Your task to perform on an android device: See recent photos Image 0: 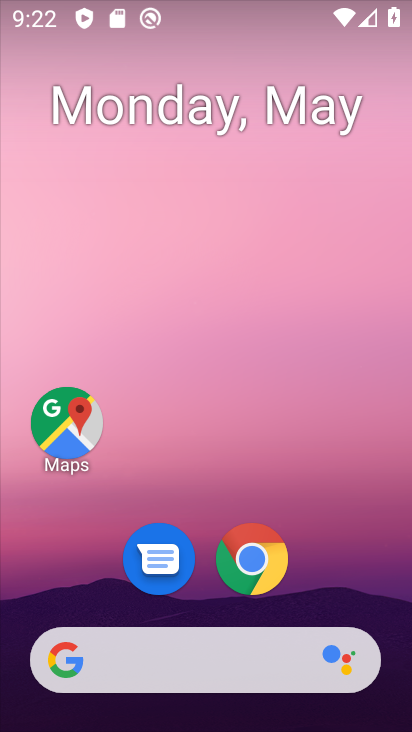
Step 0: drag from (79, 607) to (173, 133)
Your task to perform on an android device: See recent photos Image 1: 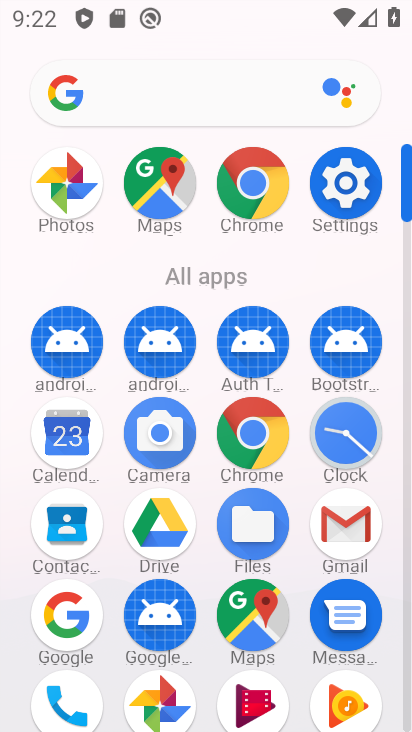
Step 1: drag from (125, 626) to (187, 318)
Your task to perform on an android device: See recent photos Image 2: 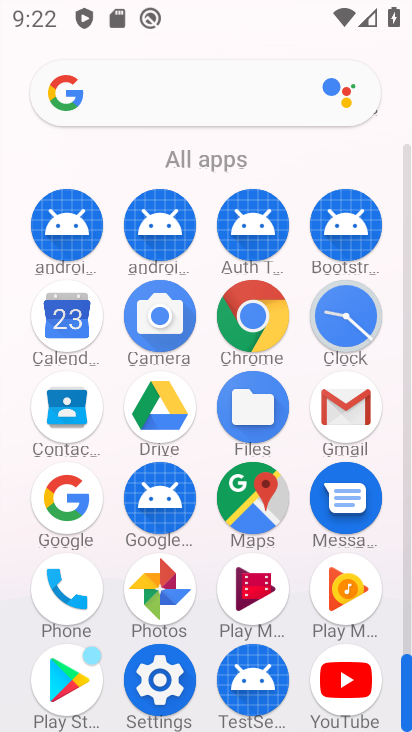
Step 2: click (149, 565)
Your task to perform on an android device: See recent photos Image 3: 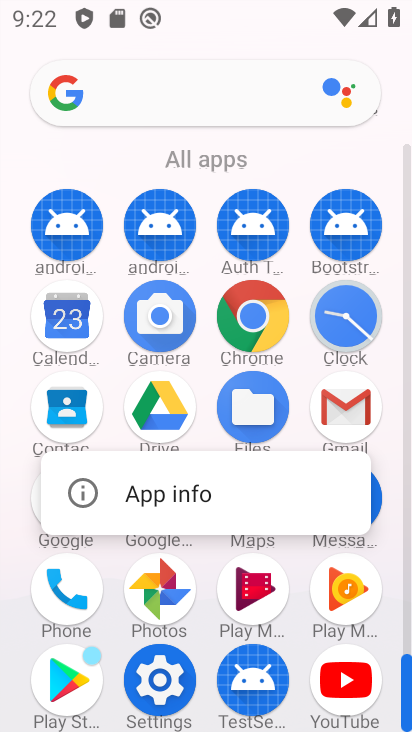
Step 3: click (177, 593)
Your task to perform on an android device: See recent photos Image 4: 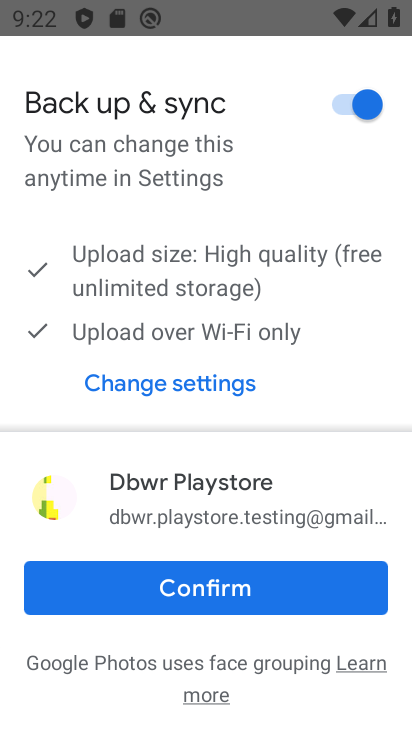
Step 4: click (208, 621)
Your task to perform on an android device: See recent photos Image 5: 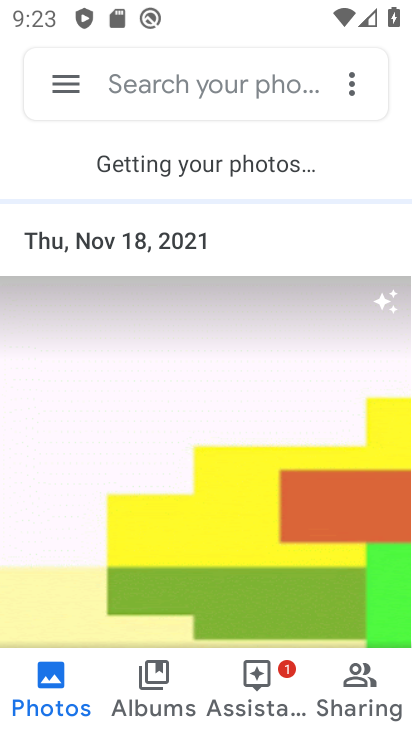
Step 5: task complete